Your task to perform on an android device: add a label to a message in the gmail app Image 0: 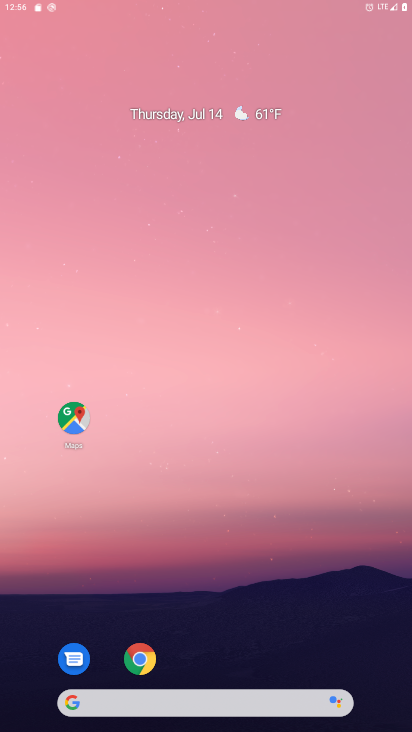
Step 0: press home button
Your task to perform on an android device: add a label to a message in the gmail app Image 1: 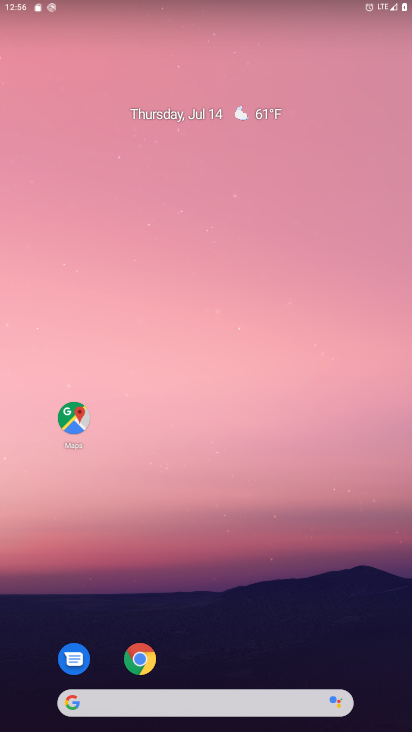
Step 1: drag from (231, 662) to (4, 9)
Your task to perform on an android device: add a label to a message in the gmail app Image 2: 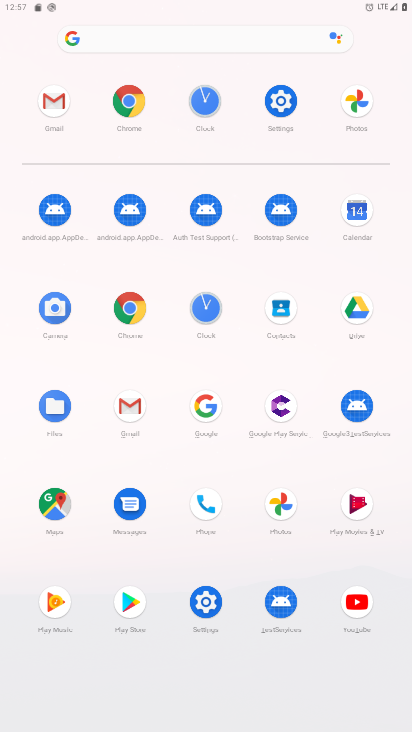
Step 2: click (124, 396)
Your task to perform on an android device: add a label to a message in the gmail app Image 3: 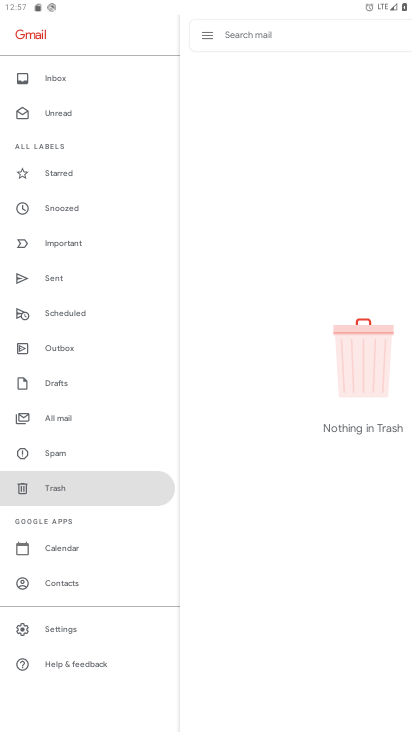
Step 3: task complete